Your task to perform on an android device: Open Google Image 0: 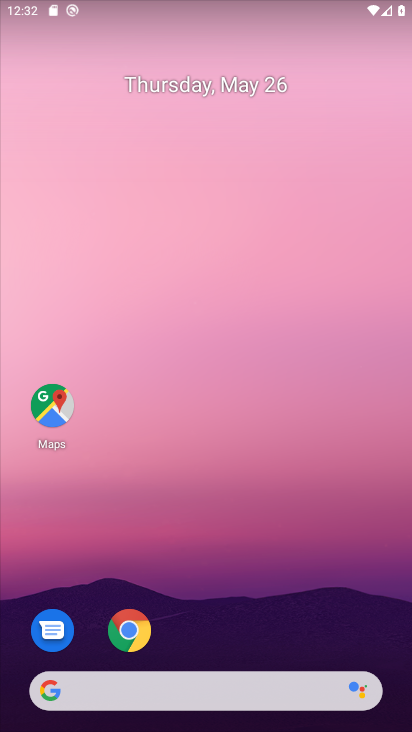
Step 0: drag from (217, 629) to (244, 87)
Your task to perform on an android device: Open Google Image 1: 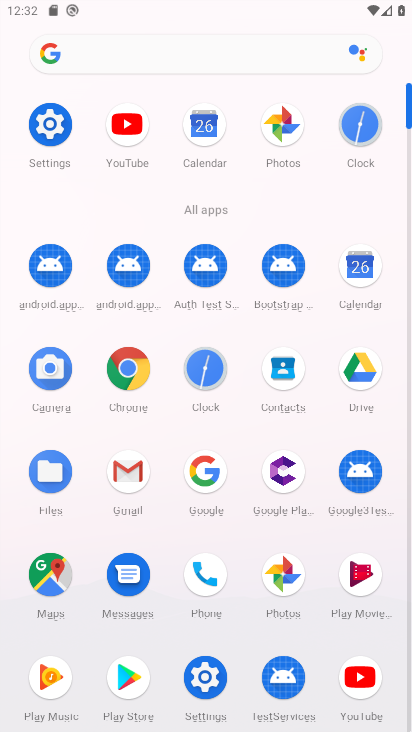
Step 1: click (204, 464)
Your task to perform on an android device: Open Google Image 2: 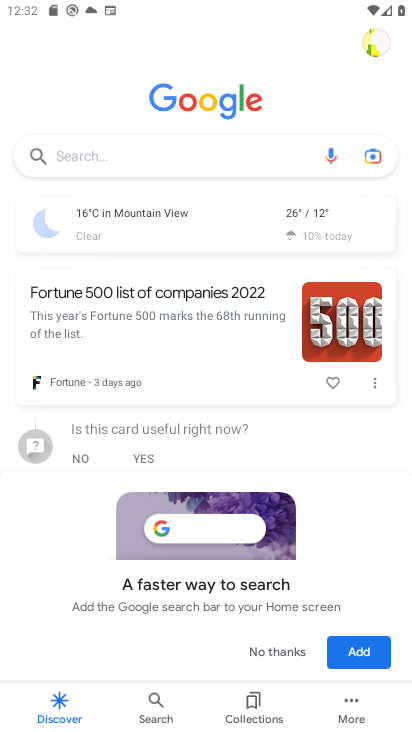
Step 2: click (152, 705)
Your task to perform on an android device: Open Google Image 3: 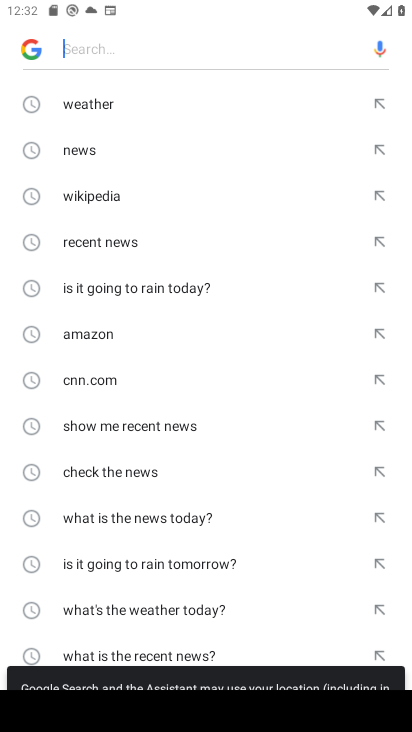
Step 3: task complete